Your task to perform on an android device: change the clock style Image 0: 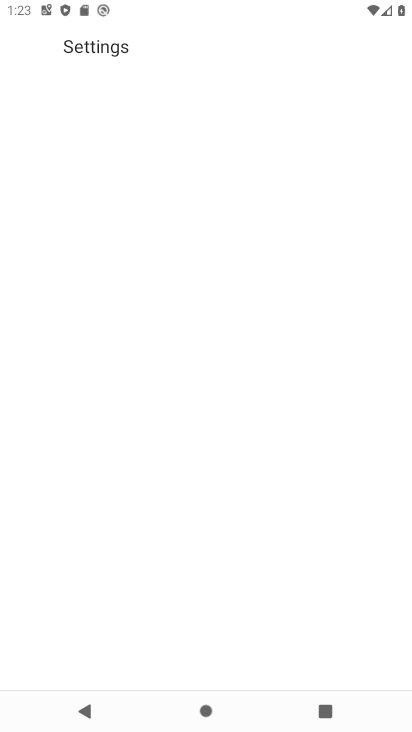
Step 0: drag from (133, 592) to (411, 561)
Your task to perform on an android device: change the clock style Image 1: 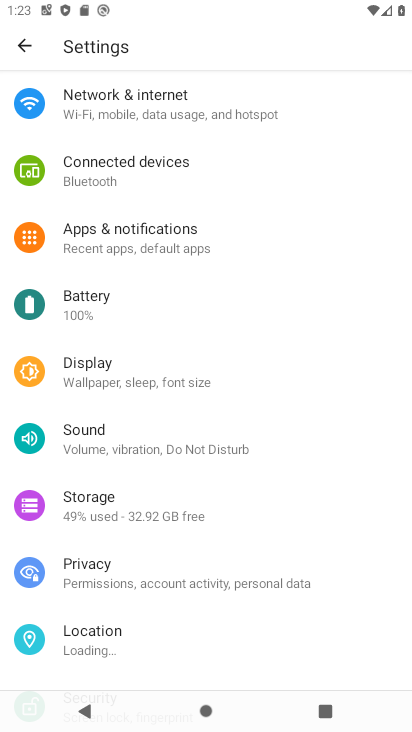
Step 1: press home button
Your task to perform on an android device: change the clock style Image 2: 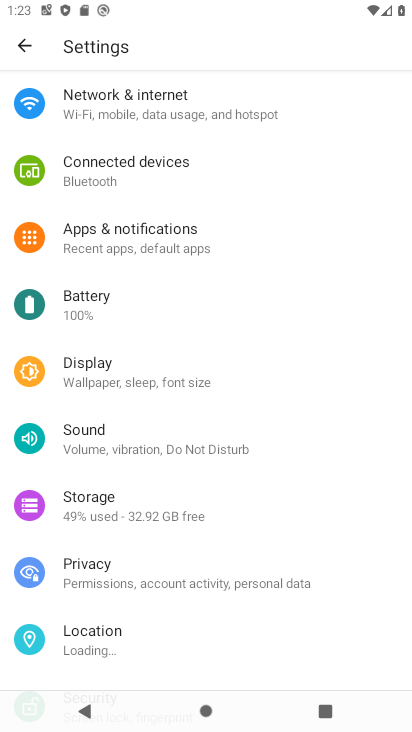
Step 2: drag from (411, 561) to (404, 502)
Your task to perform on an android device: change the clock style Image 3: 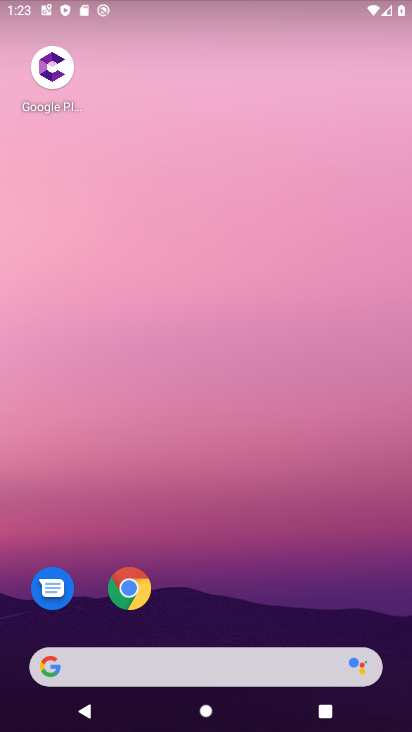
Step 3: drag from (257, 577) to (227, 91)
Your task to perform on an android device: change the clock style Image 4: 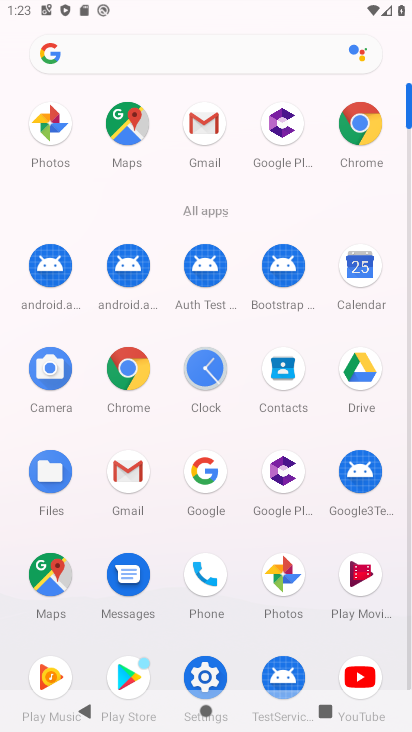
Step 4: click (202, 385)
Your task to perform on an android device: change the clock style Image 5: 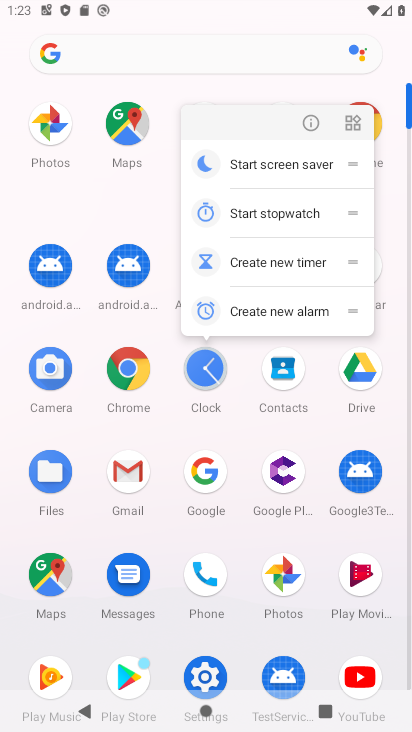
Step 5: click (311, 133)
Your task to perform on an android device: change the clock style Image 6: 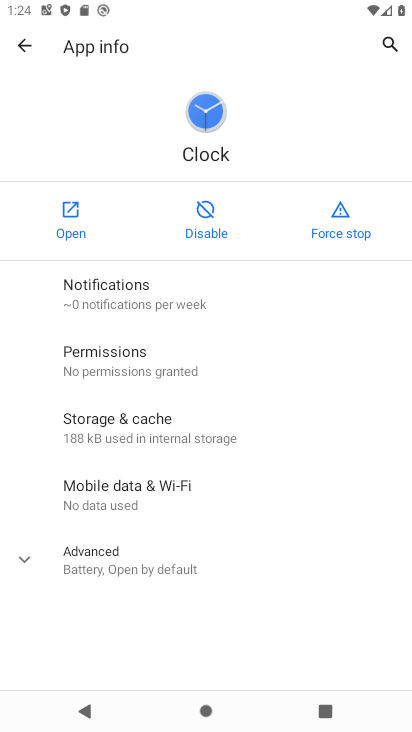
Step 6: click (92, 226)
Your task to perform on an android device: change the clock style Image 7: 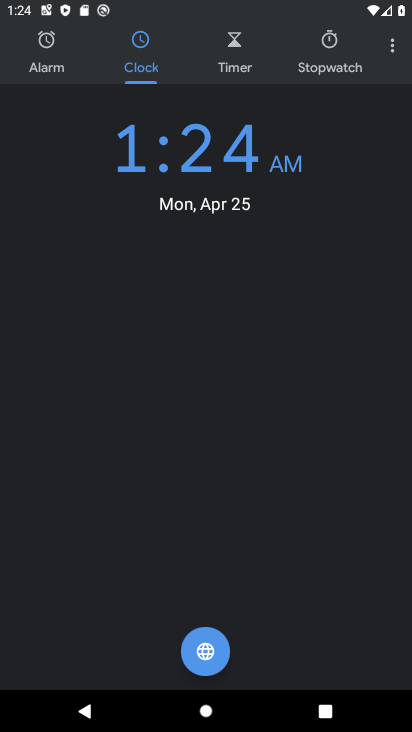
Step 7: click (395, 58)
Your task to perform on an android device: change the clock style Image 8: 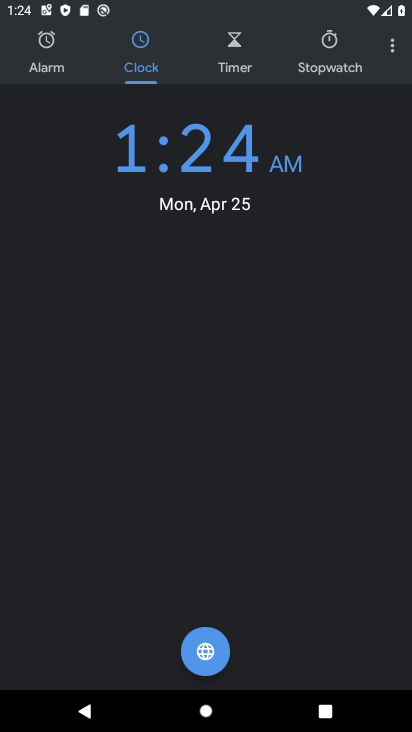
Step 8: click (400, 49)
Your task to perform on an android device: change the clock style Image 9: 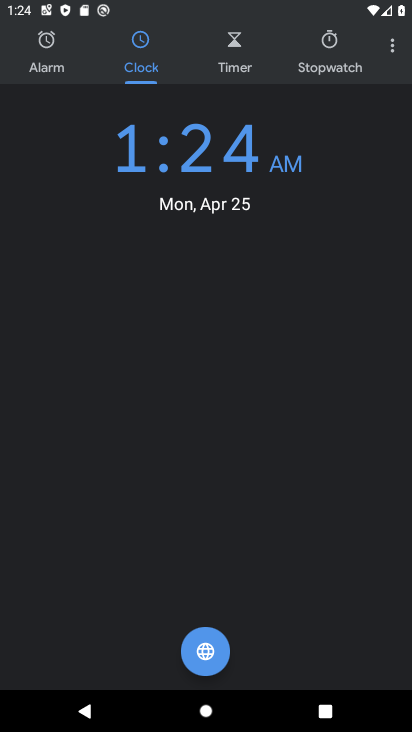
Step 9: click (387, 53)
Your task to perform on an android device: change the clock style Image 10: 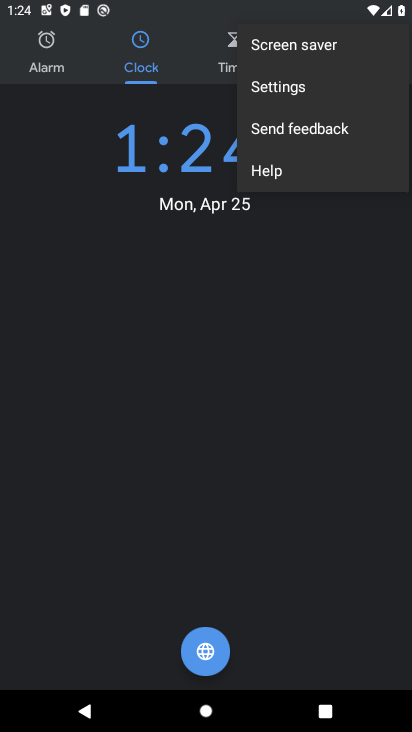
Step 10: click (330, 101)
Your task to perform on an android device: change the clock style Image 11: 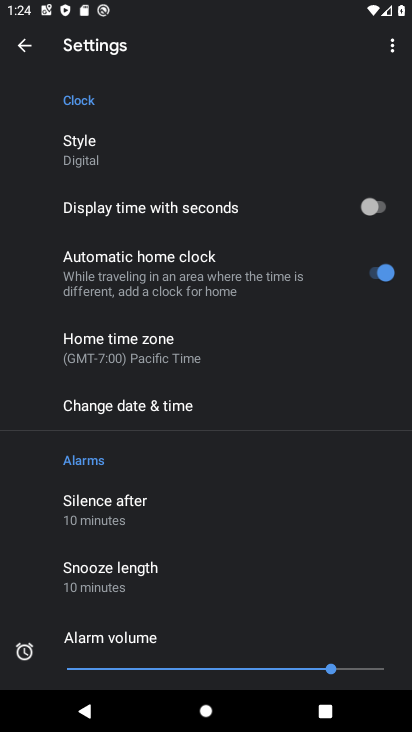
Step 11: click (192, 163)
Your task to perform on an android device: change the clock style Image 12: 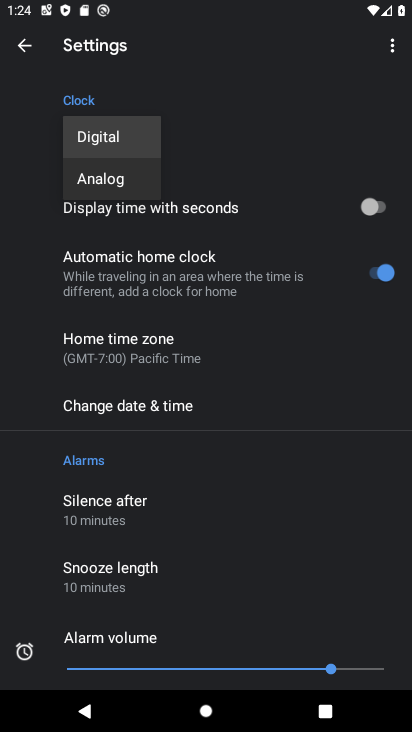
Step 12: click (125, 183)
Your task to perform on an android device: change the clock style Image 13: 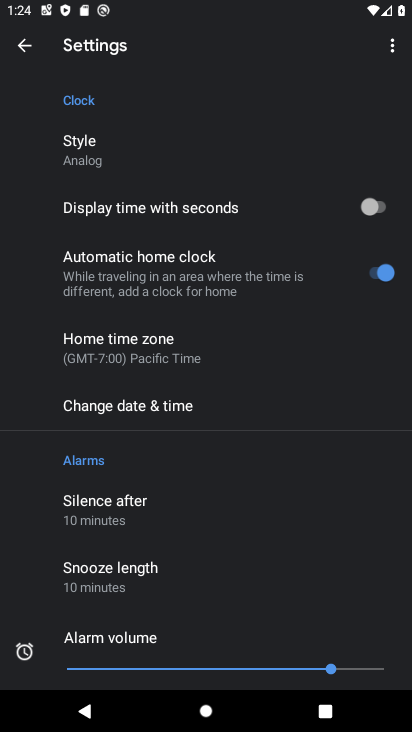
Step 13: task complete